Your task to perform on an android device: What's the weather going to be tomorrow? Image 0: 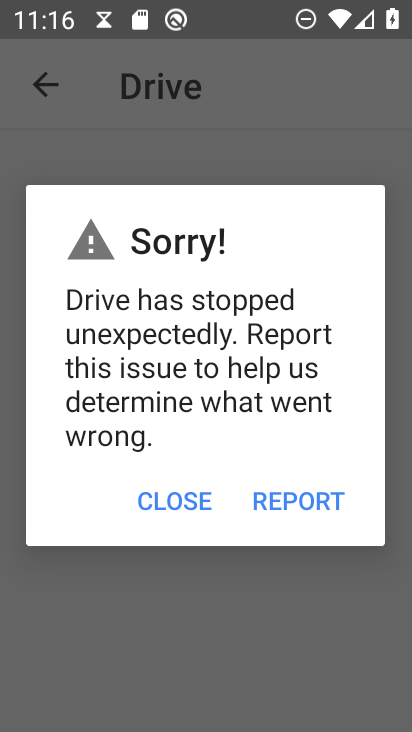
Step 0: press home button
Your task to perform on an android device: What's the weather going to be tomorrow? Image 1: 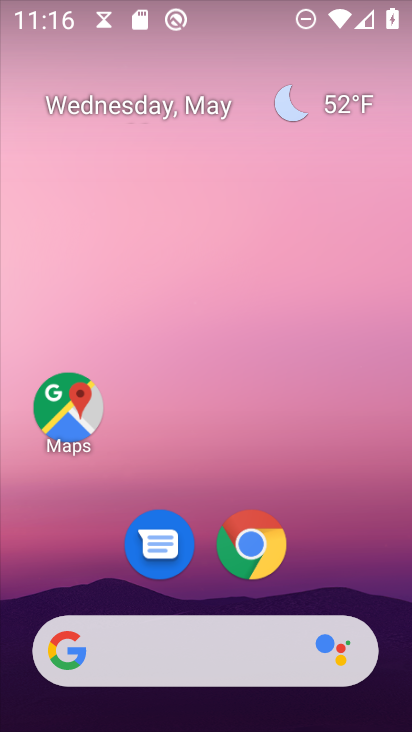
Step 1: click (344, 102)
Your task to perform on an android device: What's the weather going to be tomorrow? Image 2: 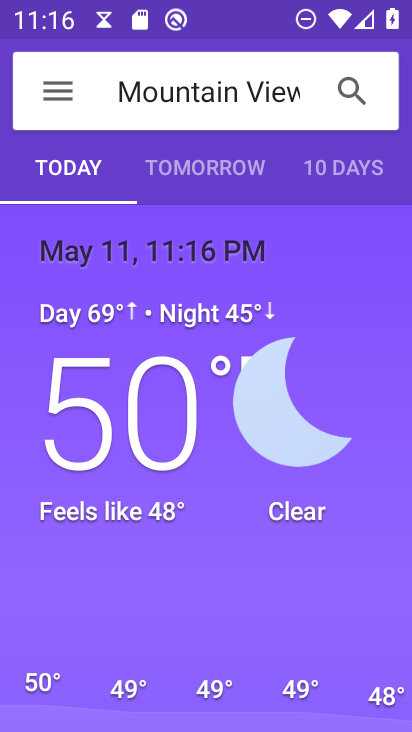
Step 2: task complete